Your task to perform on an android device: turn notification dots on Image 0: 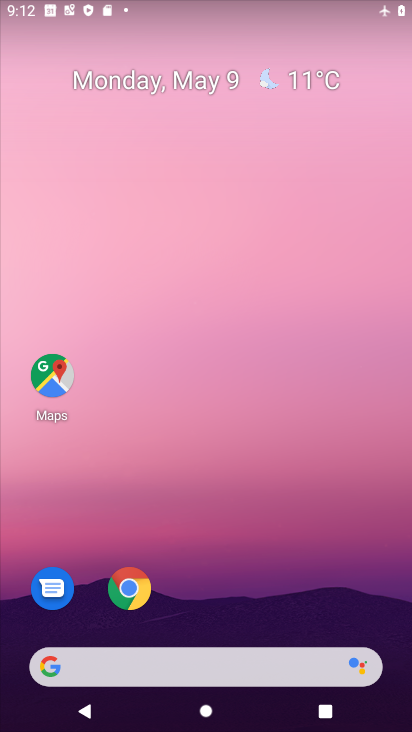
Step 0: drag from (225, 642) to (350, 104)
Your task to perform on an android device: turn notification dots on Image 1: 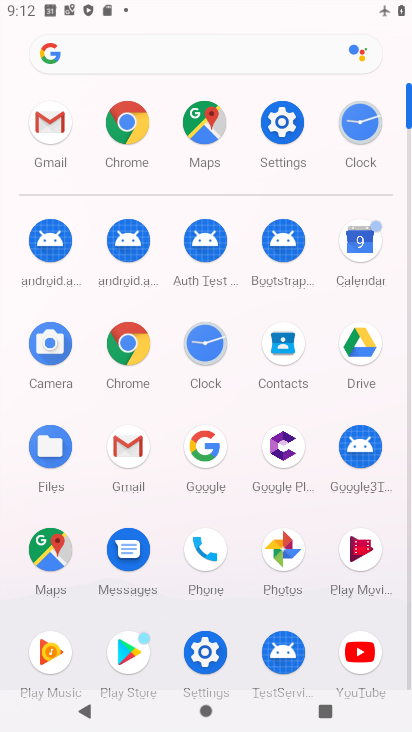
Step 1: click (285, 132)
Your task to perform on an android device: turn notification dots on Image 2: 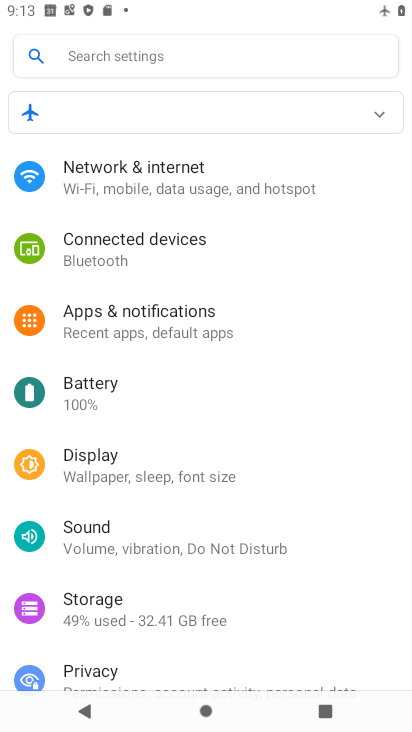
Step 2: click (177, 316)
Your task to perform on an android device: turn notification dots on Image 3: 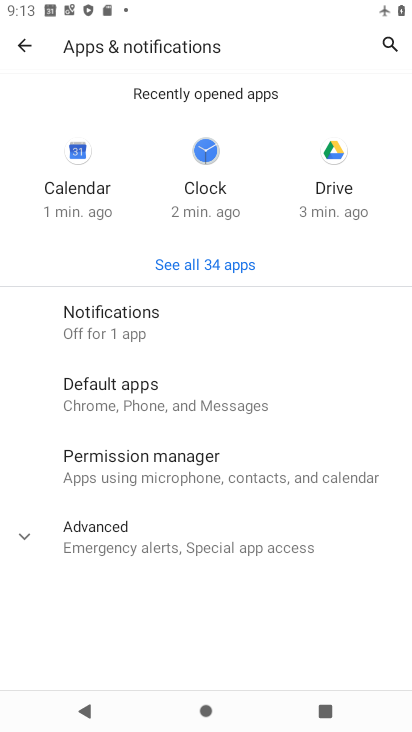
Step 3: click (137, 316)
Your task to perform on an android device: turn notification dots on Image 4: 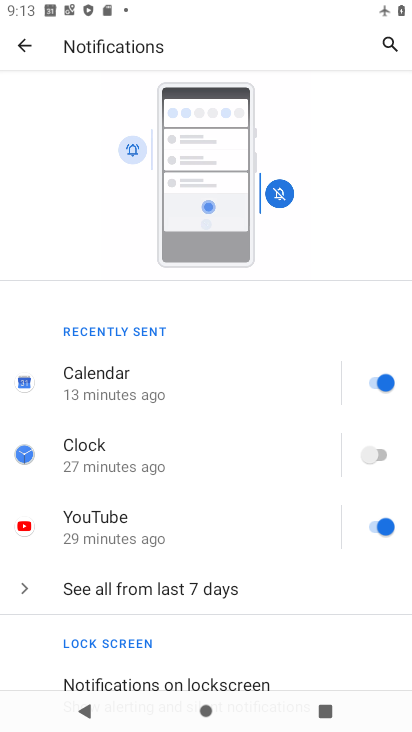
Step 4: drag from (185, 671) to (358, 204)
Your task to perform on an android device: turn notification dots on Image 5: 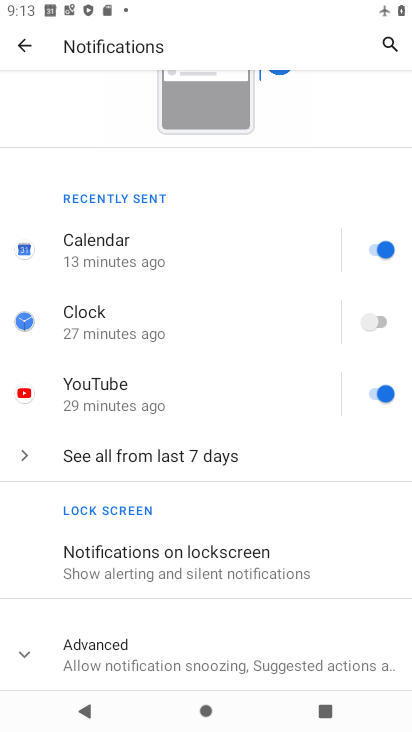
Step 5: drag from (225, 536) to (357, 83)
Your task to perform on an android device: turn notification dots on Image 6: 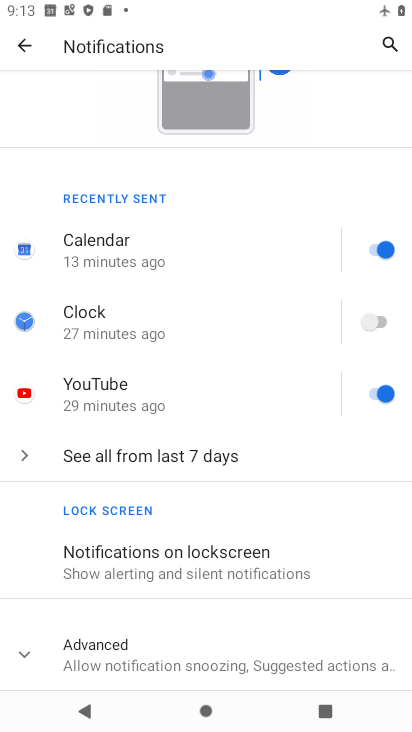
Step 6: click (127, 644)
Your task to perform on an android device: turn notification dots on Image 7: 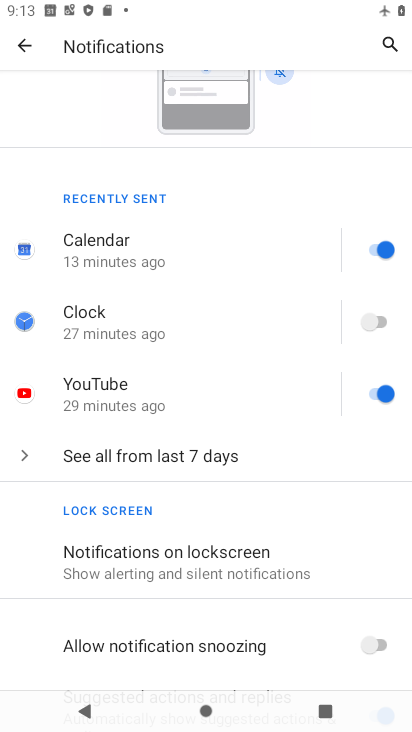
Step 7: task complete